Your task to perform on an android device: see sites visited before in the chrome app Image 0: 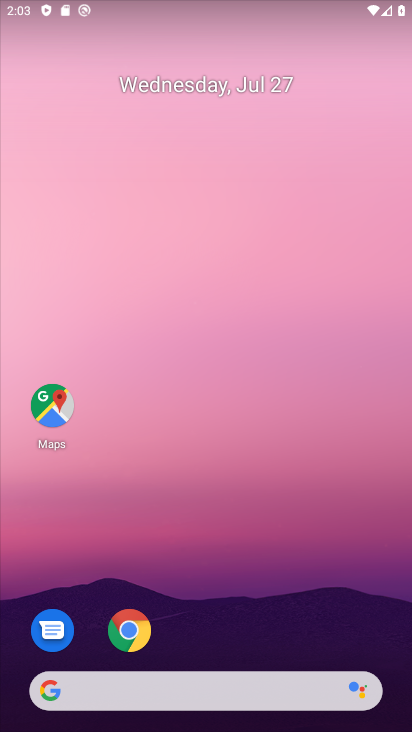
Step 0: click (123, 633)
Your task to perform on an android device: see sites visited before in the chrome app Image 1: 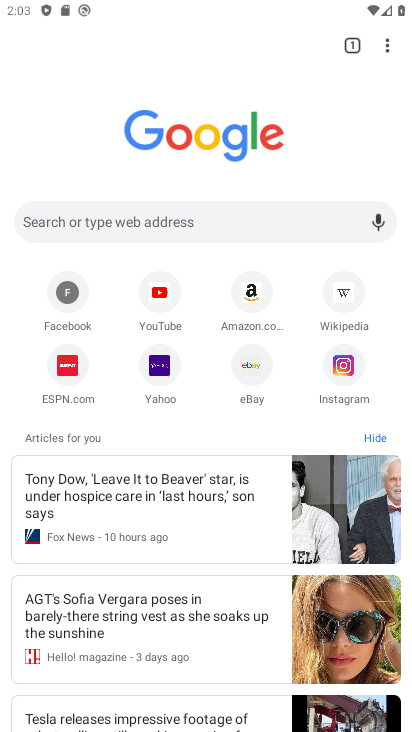
Step 1: click (391, 36)
Your task to perform on an android device: see sites visited before in the chrome app Image 2: 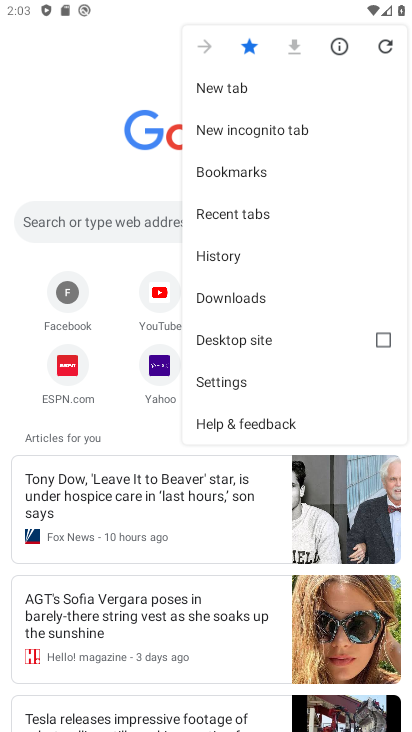
Step 2: click (247, 258)
Your task to perform on an android device: see sites visited before in the chrome app Image 3: 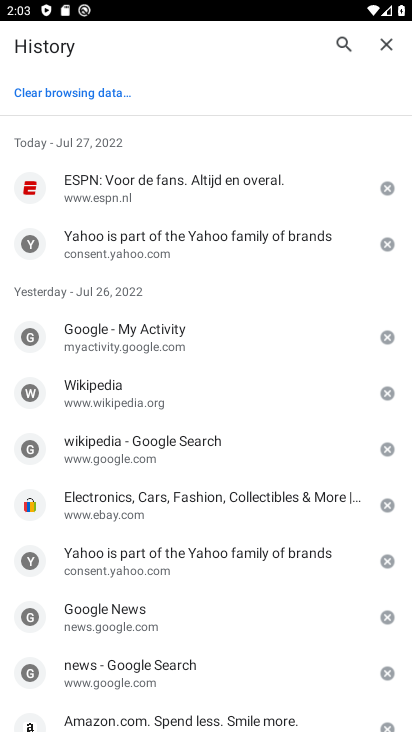
Step 3: task complete